Your task to perform on an android device: Search for the best selling phone on AliExpress Image 0: 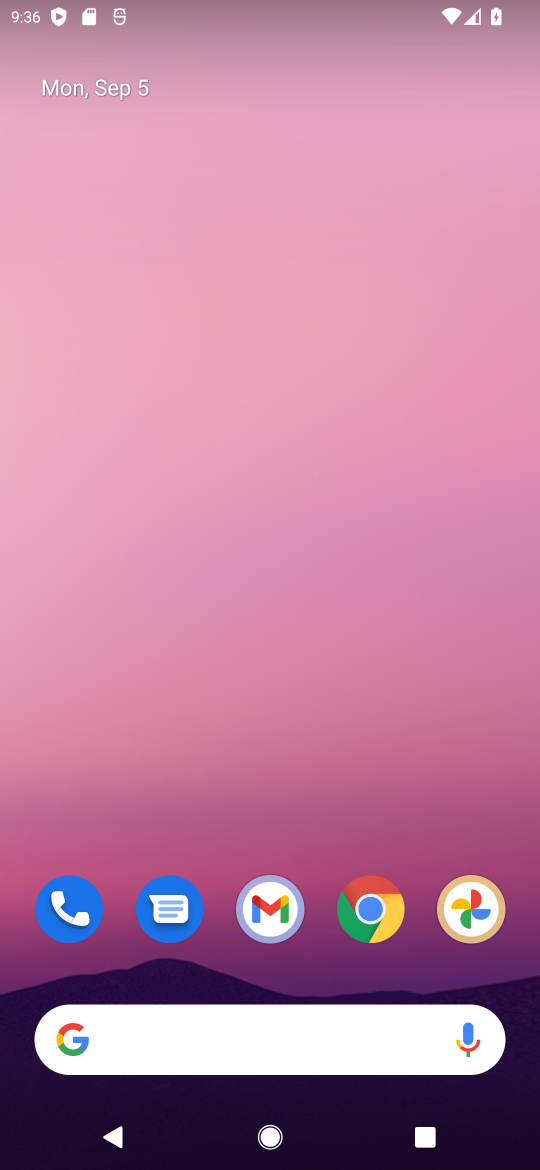
Step 0: click (384, 878)
Your task to perform on an android device: Search for the best selling phone on AliExpress Image 1: 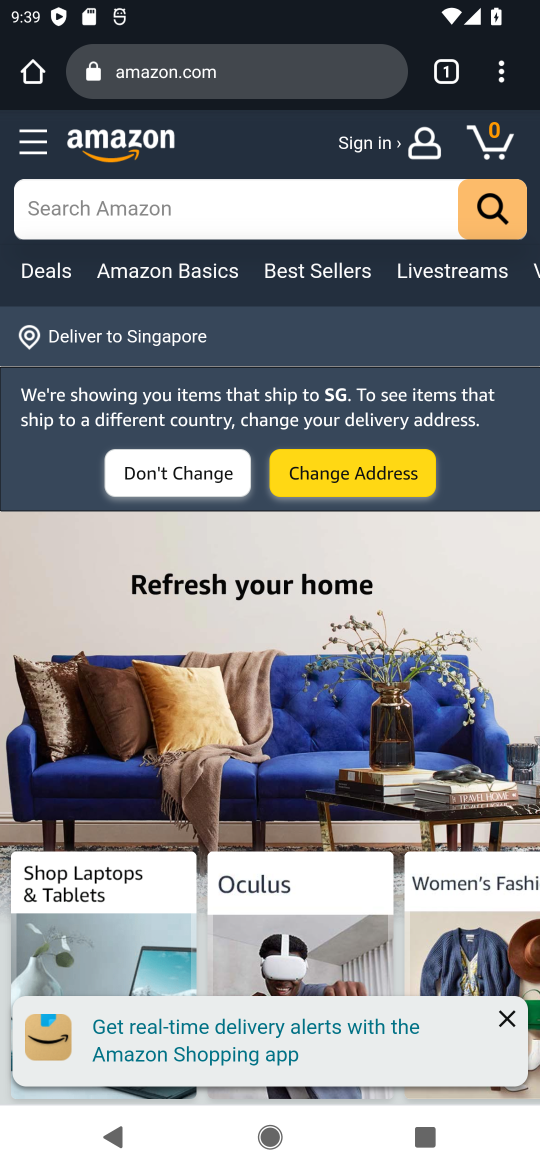
Step 1: task complete